Your task to perform on an android device: turn off location history Image 0: 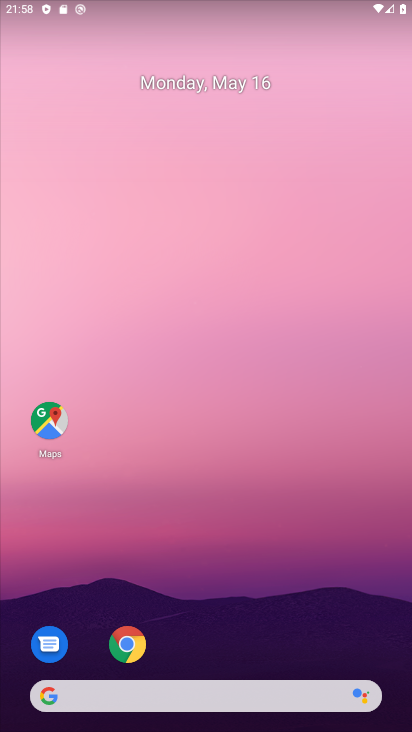
Step 0: drag from (17, 546) to (203, 48)
Your task to perform on an android device: turn off location history Image 1: 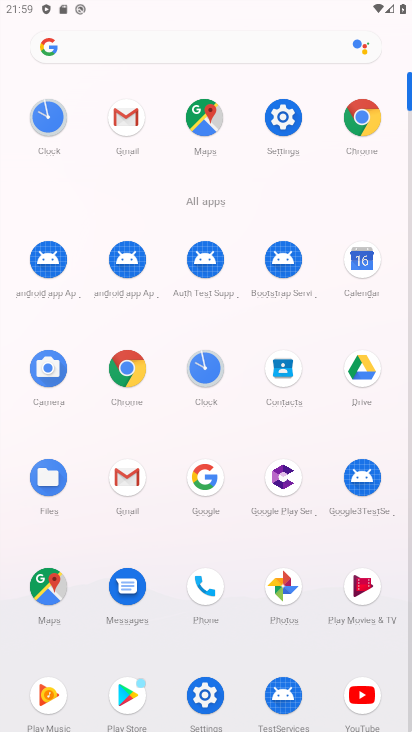
Step 1: click (284, 120)
Your task to perform on an android device: turn off location history Image 2: 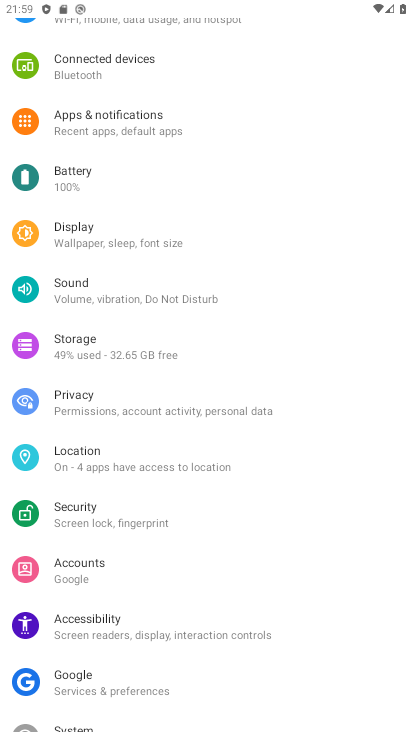
Step 2: click (93, 461)
Your task to perform on an android device: turn off location history Image 3: 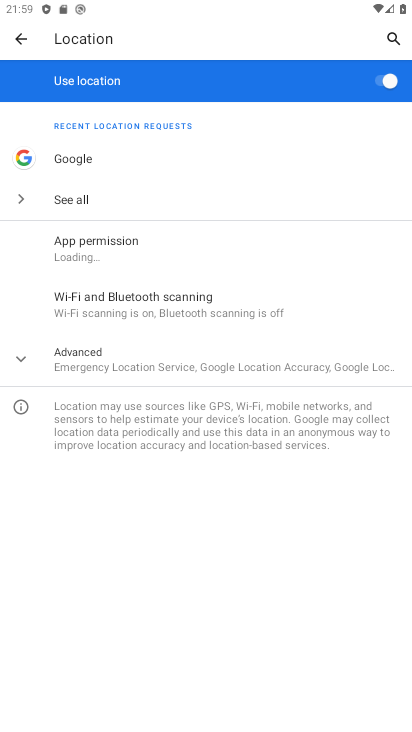
Step 3: click (394, 86)
Your task to perform on an android device: turn off location history Image 4: 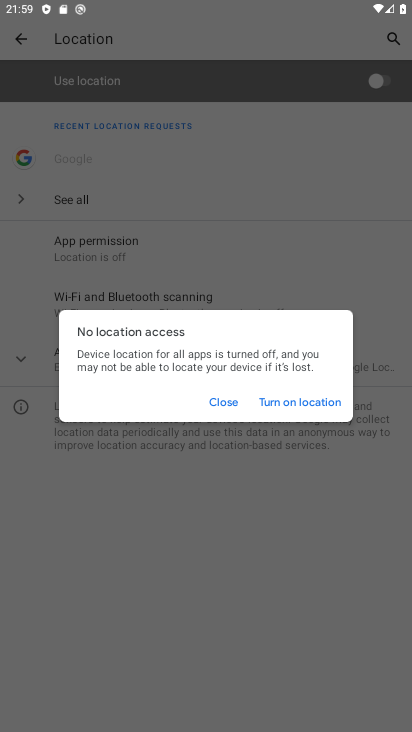
Step 4: task complete